Your task to perform on an android device: Open accessibility settings Image 0: 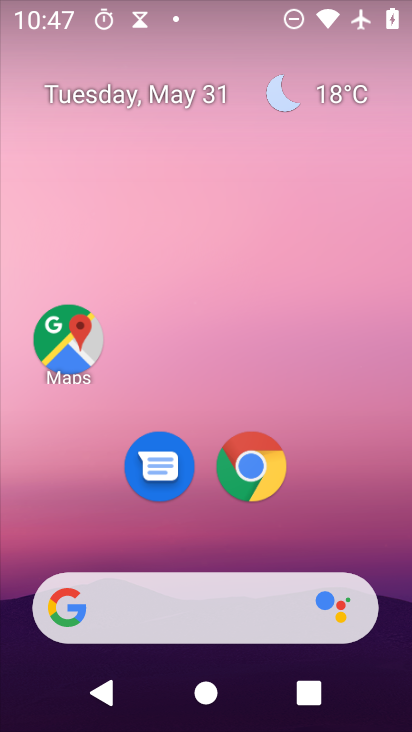
Step 0: drag from (370, 523) to (135, 2)
Your task to perform on an android device: Open accessibility settings Image 1: 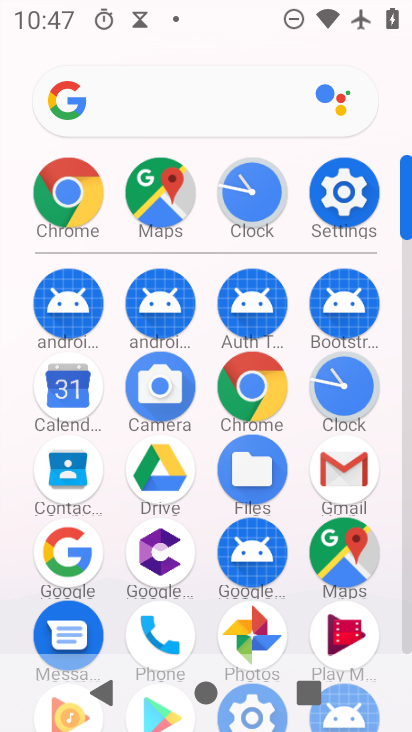
Step 1: drag from (21, 595) to (27, 252)
Your task to perform on an android device: Open accessibility settings Image 2: 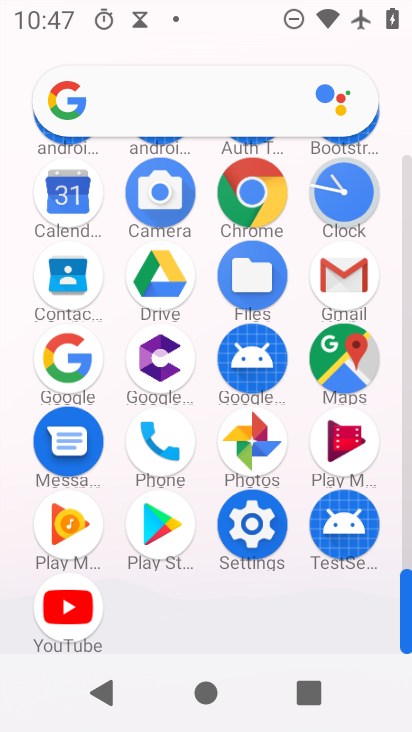
Step 2: click (251, 521)
Your task to perform on an android device: Open accessibility settings Image 3: 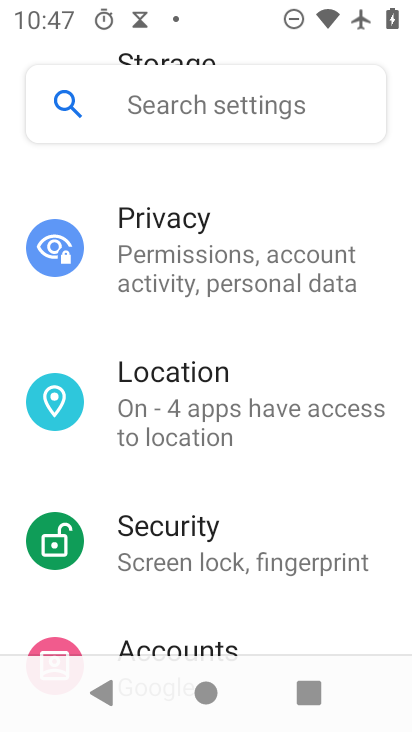
Step 3: drag from (235, 574) to (256, 145)
Your task to perform on an android device: Open accessibility settings Image 4: 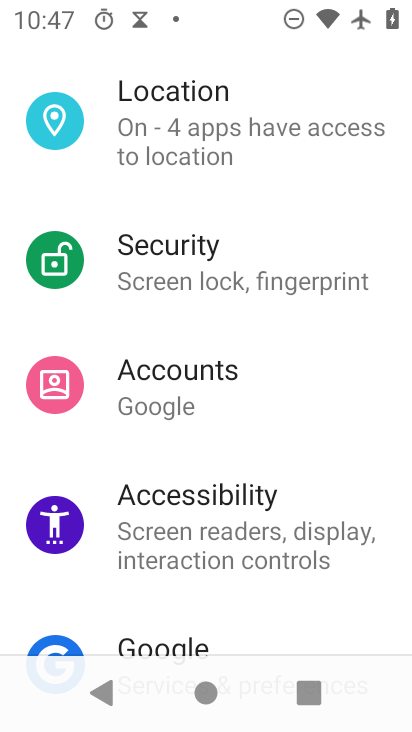
Step 4: drag from (276, 595) to (277, 296)
Your task to perform on an android device: Open accessibility settings Image 5: 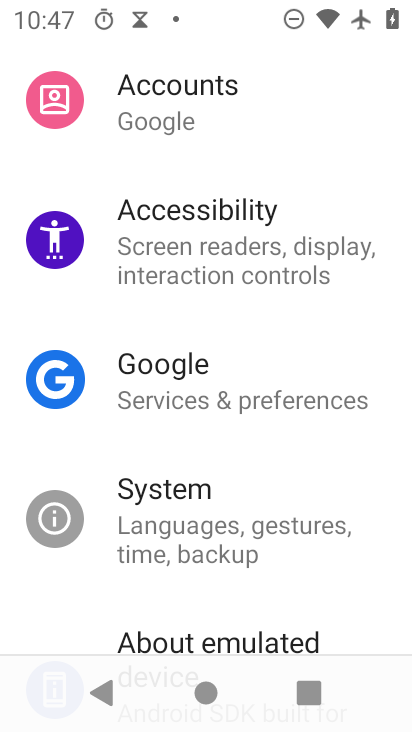
Step 5: click (230, 252)
Your task to perform on an android device: Open accessibility settings Image 6: 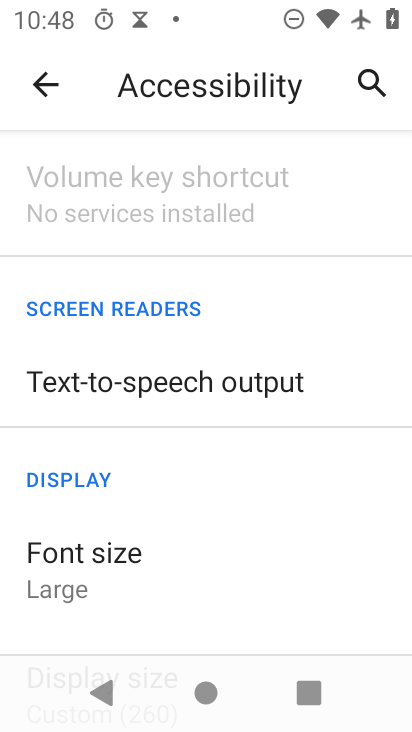
Step 6: task complete